Your task to perform on an android device: Search for pizza restaurants on Maps Image 0: 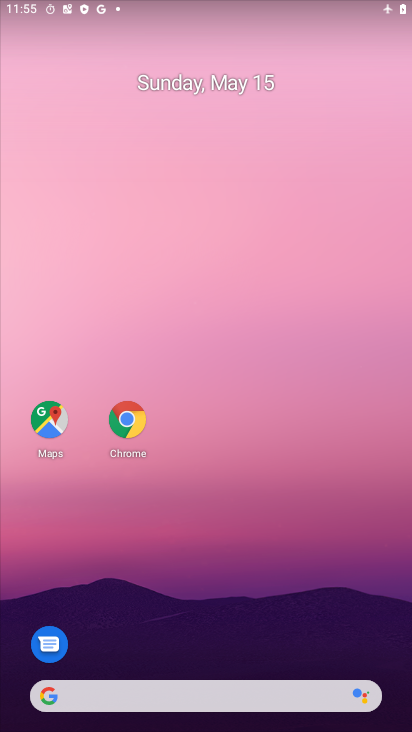
Step 0: drag from (200, 530) to (220, 68)
Your task to perform on an android device: Search for pizza restaurants on Maps Image 1: 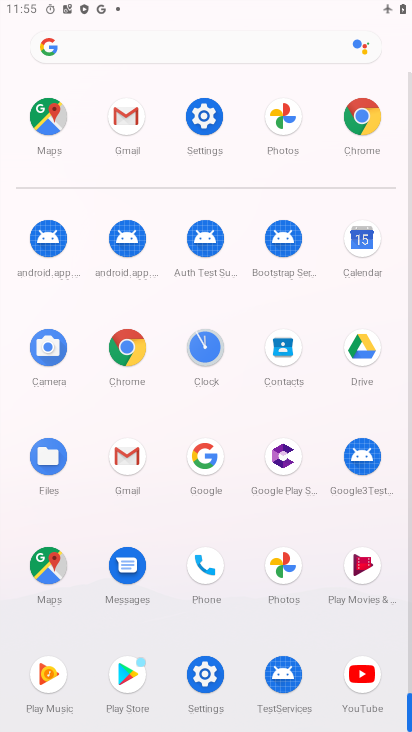
Step 1: click (35, 564)
Your task to perform on an android device: Search for pizza restaurants on Maps Image 2: 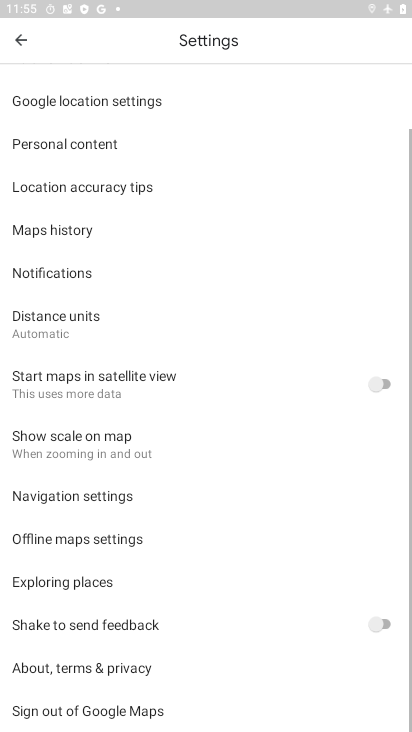
Step 2: click (17, 34)
Your task to perform on an android device: Search for pizza restaurants on Maps Image 3: 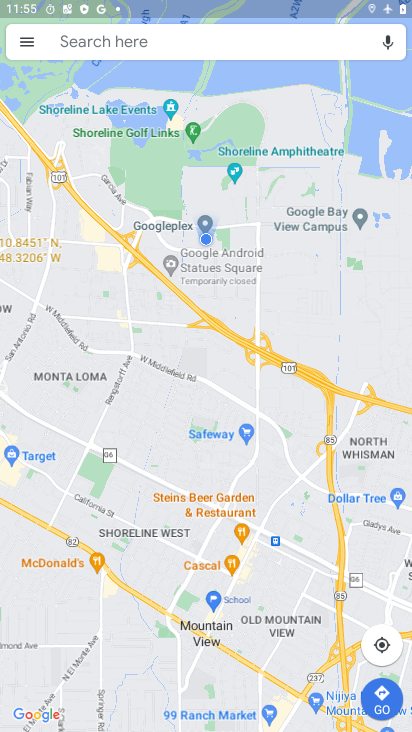
Step 3: click (24, 39)
Your task to perform on an android device: Search for pizza restaurants on Maps Image 4: 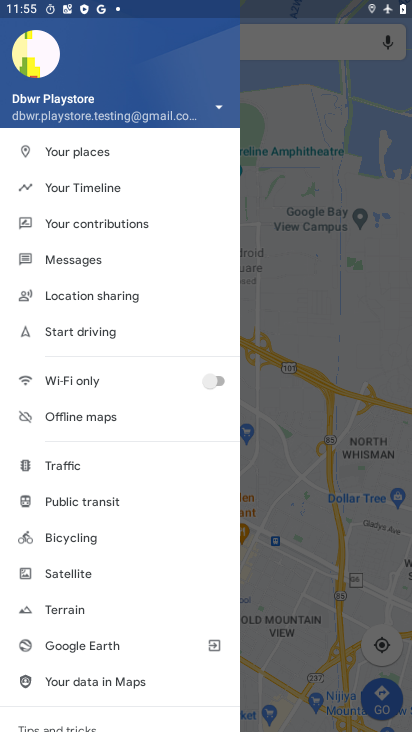
Step 4: click (292, 49)
Your task to perform on an android device: Search for pizza restaurants on Maps Image 5: 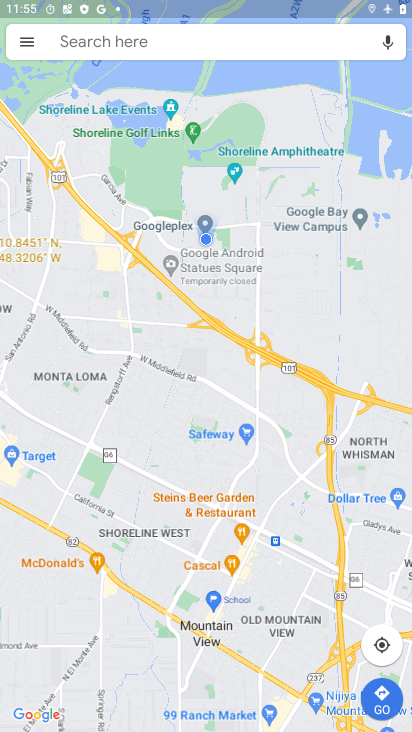
Step 5: click (209, 35)
Your task to perform on an android device: Search for pizza restaurants on Maps Image 6: 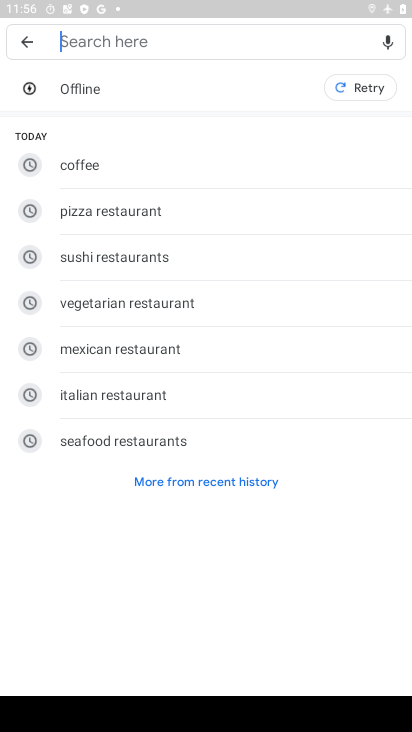
Step 6: click (66, 215)
Your task to perform on an android device: Search for pizza restaurants on Maps Image 7: 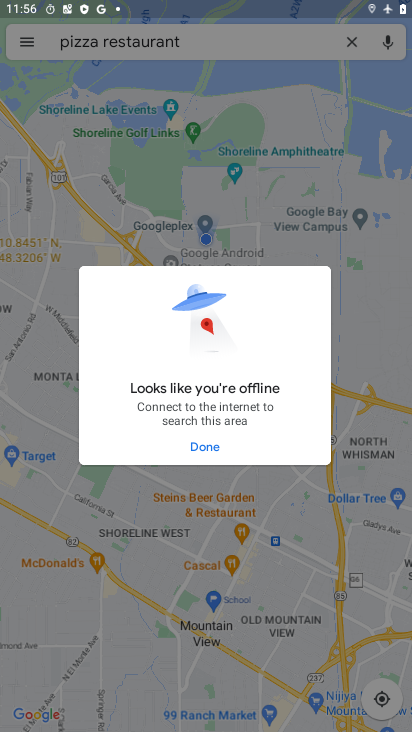
Step 7: task complete